Your task to perform on an android device: Empty the shopping cart on ebay.com. Add "logitech g pro" to the cart on ebay.com, then select checkout. Image 0: 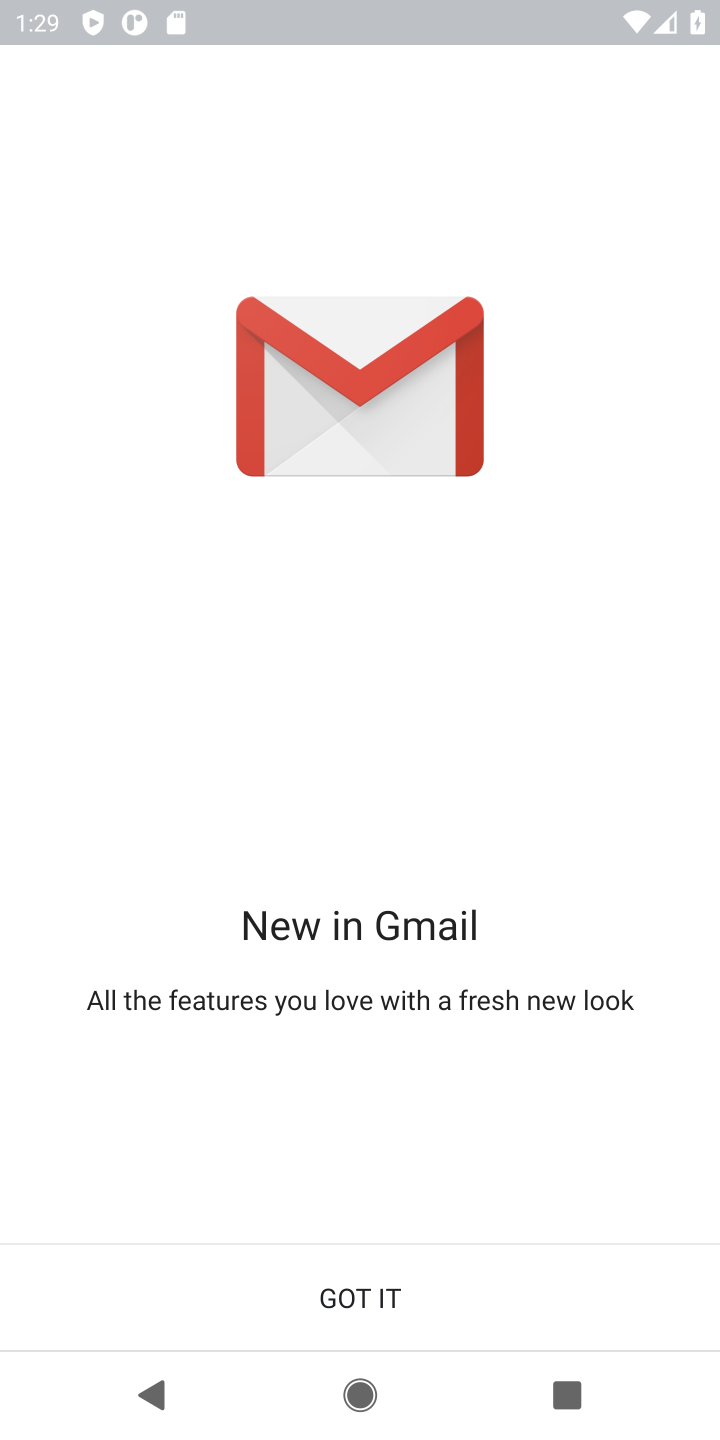
Step 0: press home button
Your task to perform on an android device: Empty the shopping cart on ebay.com. Add "logitech g pro" to the cart on ebay.com, then select checkout. Image 1: 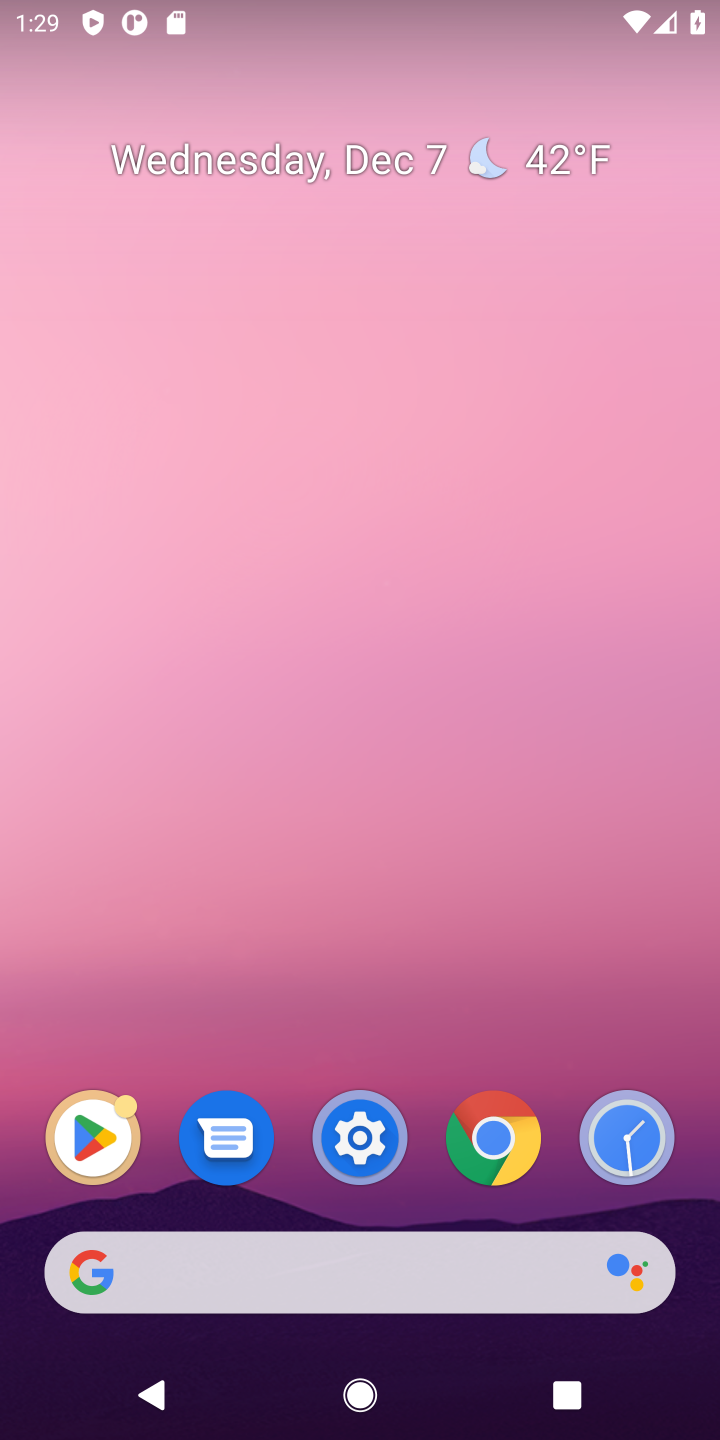
Step 1: click (228, 1273)
Your task to perform on an android device: Empty the shopping cart on ebay.com. Add "logitech g pro" to the cart on ebay.com, then select checkout. Image 2: 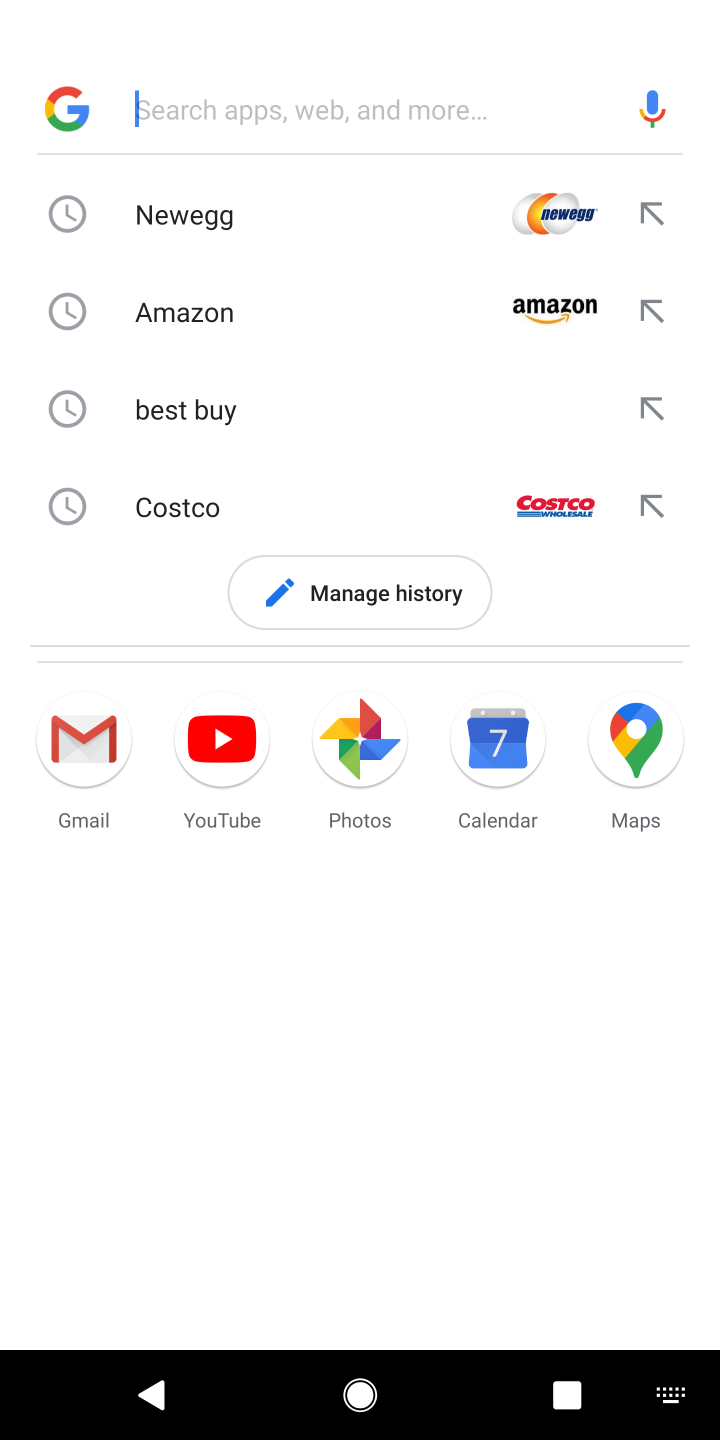
Step 2: type "ebay.com"
Your task to perform on an android device: Empty the shopping cart on ebay.com. Add "logitech g pro" to the cart on ebay.com, then select checkout. Image 3: 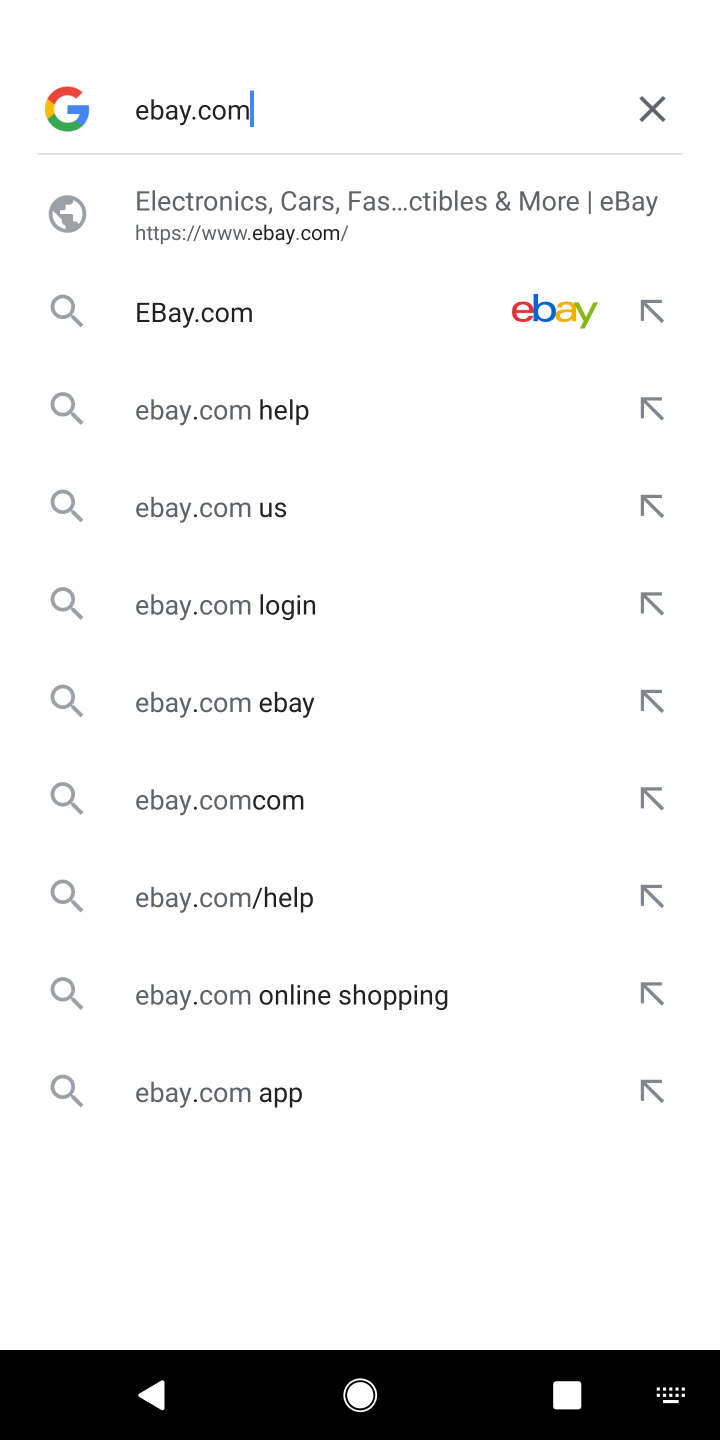
Step 3: click (238, 240)
Your task to perform on an android device: Empty the shopping cart on ebay.com. Add "logitech g pro" to the cart on ebay.com, then select checkout. Image 4: 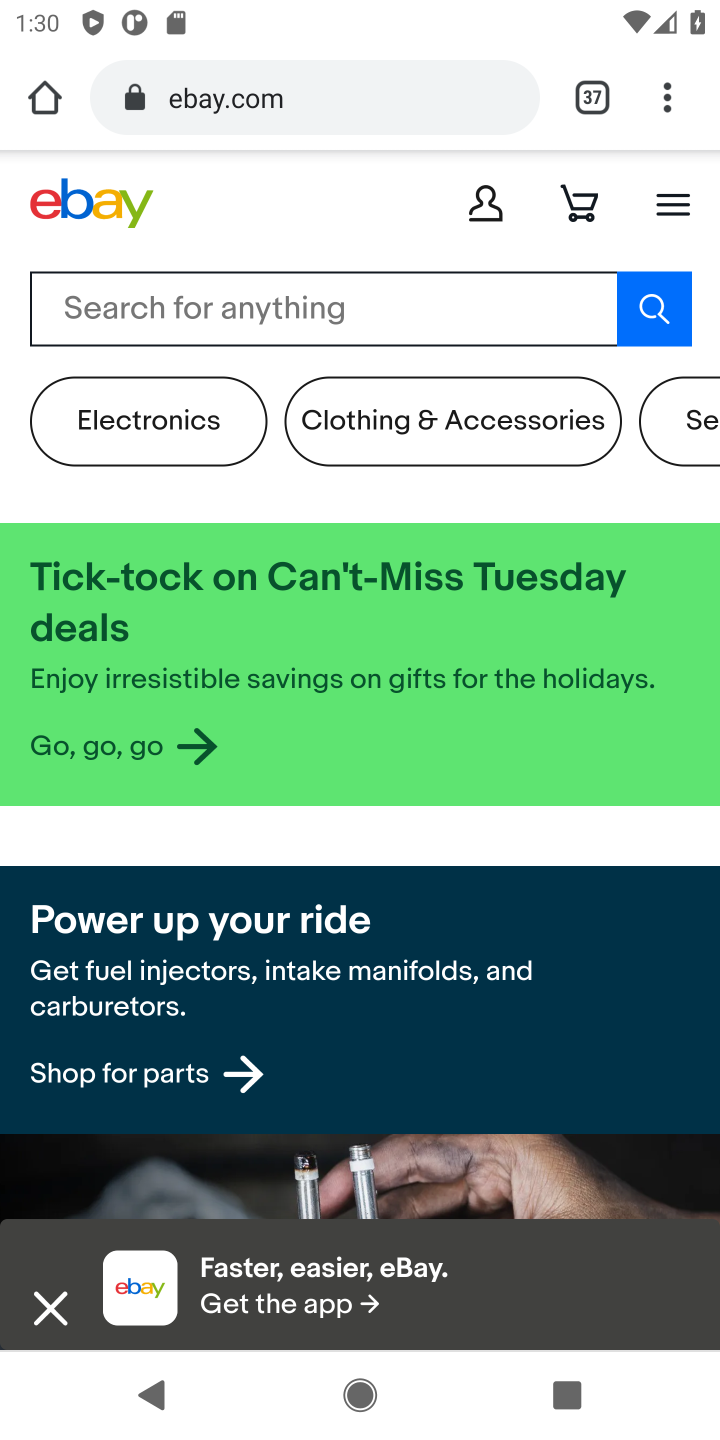
Step 4: click (240, 307)
Your task to perform on an android device: Empty the shopping cart on ebay.com. Add "logitech g pro" to the cart on ebay.com, then select checkout. Image 5: 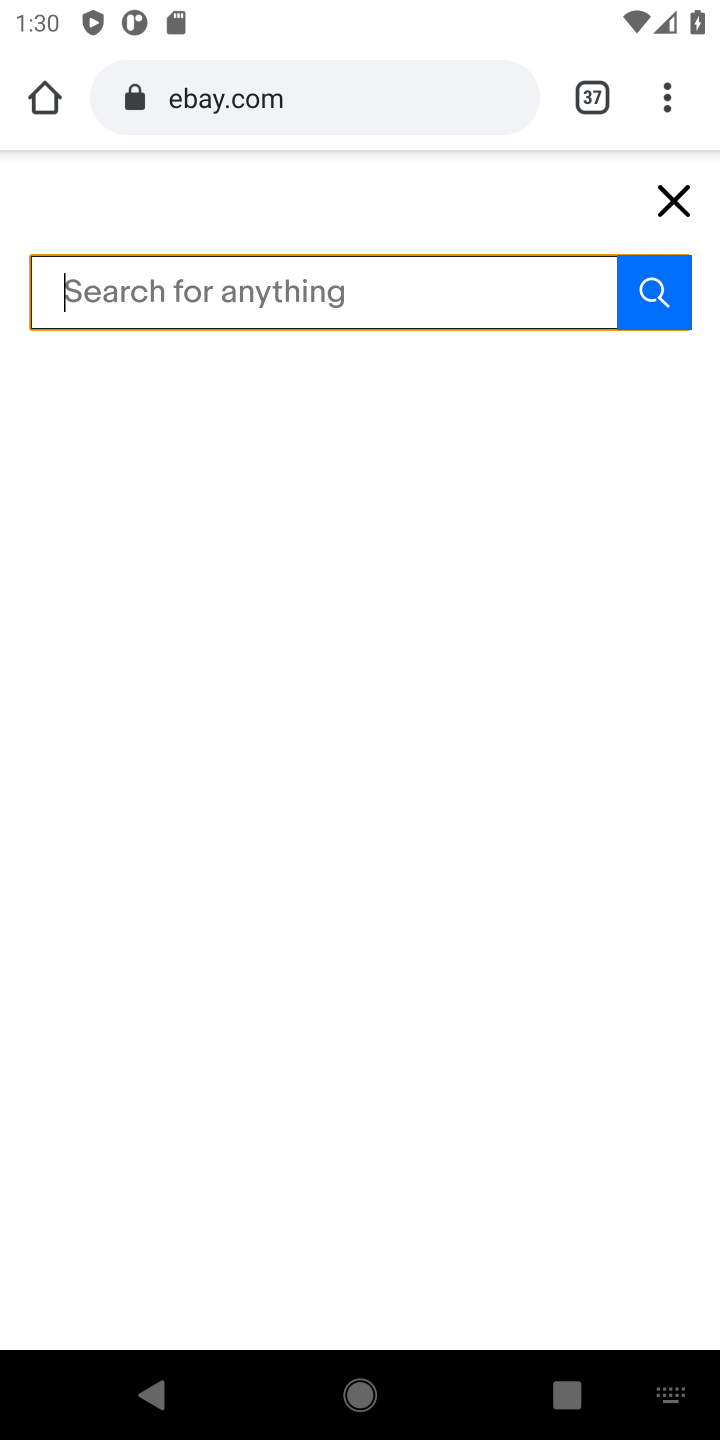
Step 5: type "logitech g pro"
Your task to perform on an android device: Empty the shopping cart on ebay.com. Add "logitech g pro" to the cart on ebay.com, then select checkout. Image 6: 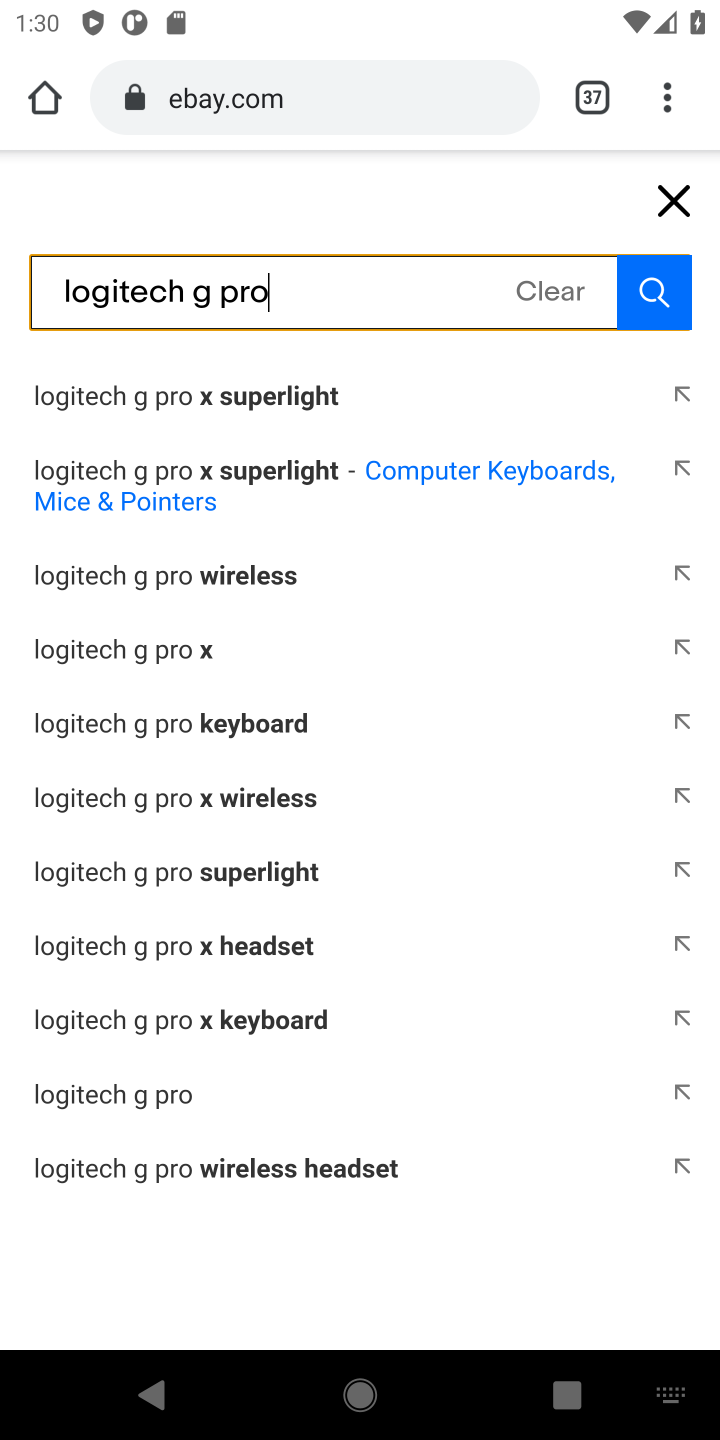
Step 6: click (657, 291)
Your task to perform on an android device: Empty the shopping cart on ebay.com. Add "logitech g pro" to the cart on ebay.com, then select checkout. Image 7: 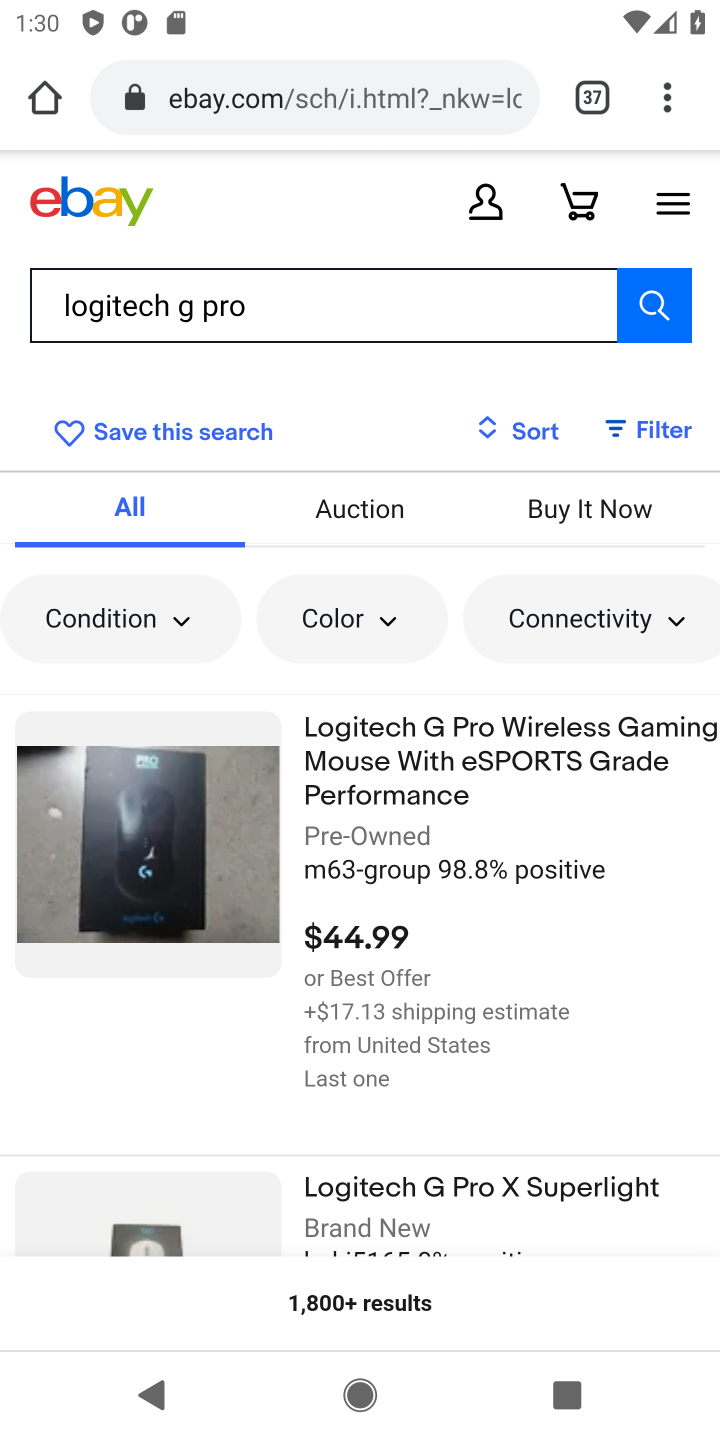
Step 7: click (644, 297)
Your task to perform on an android device: Empty the shopping cart on ebay.com. Add "logitech g pro" to the cart on ebay.com, then select checkout. Image 8: 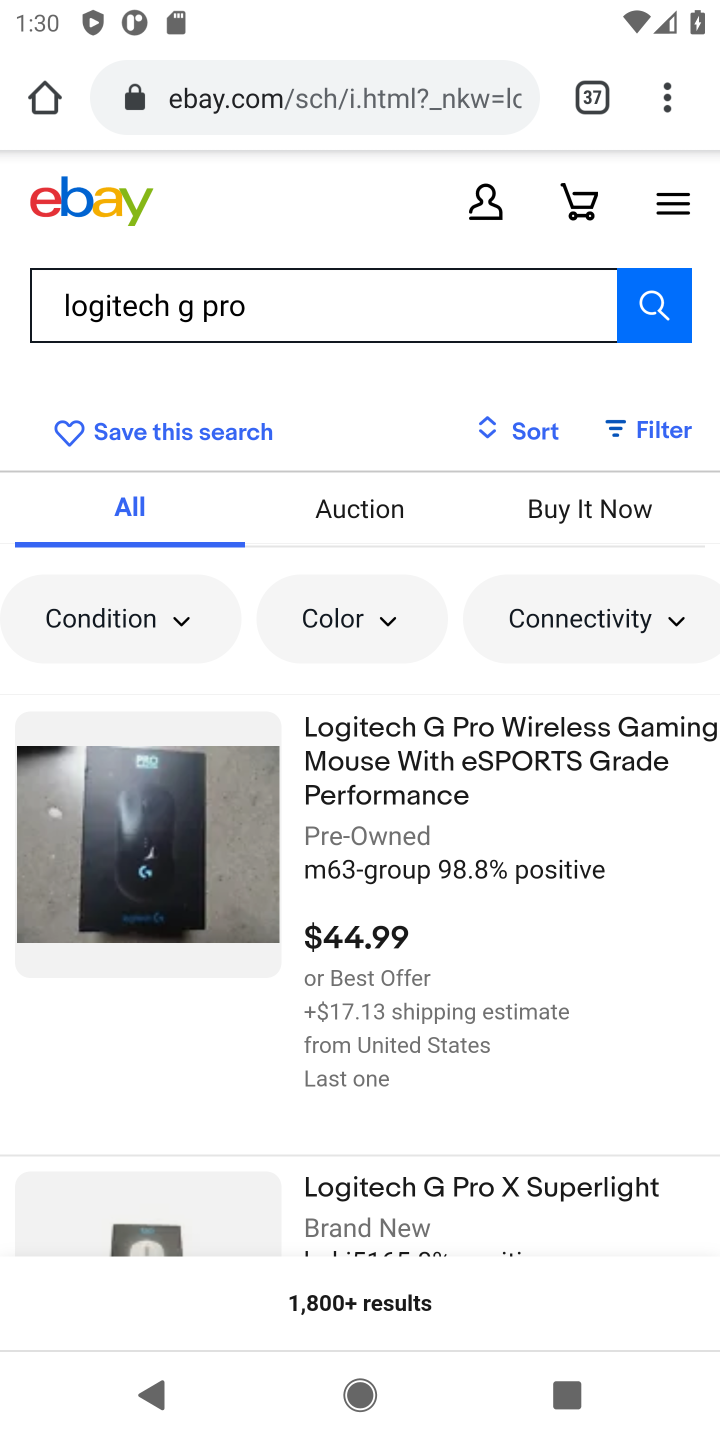
Step 8: click (533, 735)
Your task to perform on an android device: Empty the shopping cart on ebay.com. Add "logitech g pro" to the cart on ebay.com, then select checkout. Image 9: 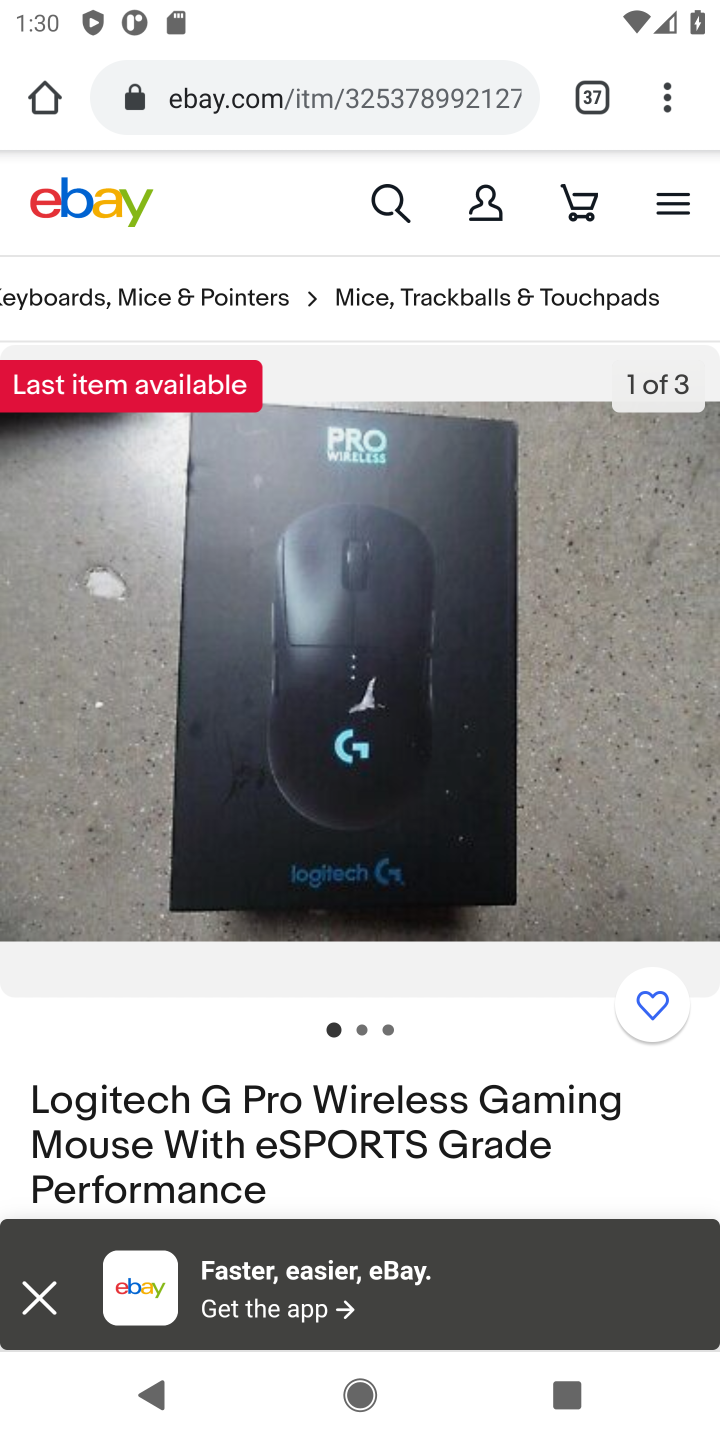
Step 9: task complete